Your task to perform on an android device: open app "Life360: Find Family & Friends" Image 0: 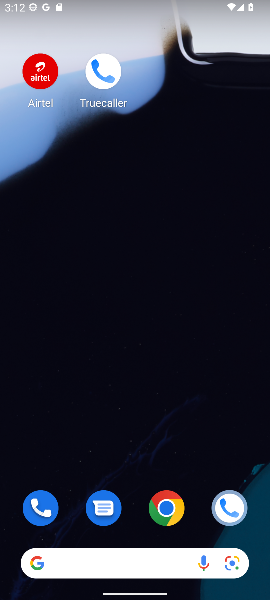
Step 0: drag from (206, 465) to (89, 30)
Your task to perform on an android device: open app "Life360: Find Family & Friends" Image 1: 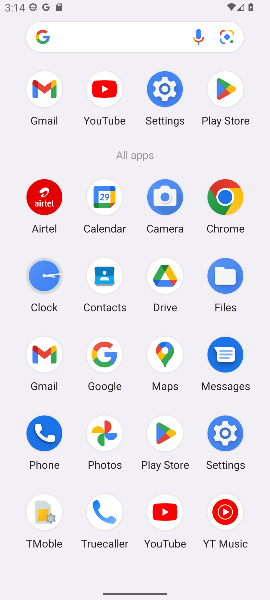
Step 1: click (161, 428)
Your task to perform on an android device: open app "Life360: Find Family & Friends" Image 2: 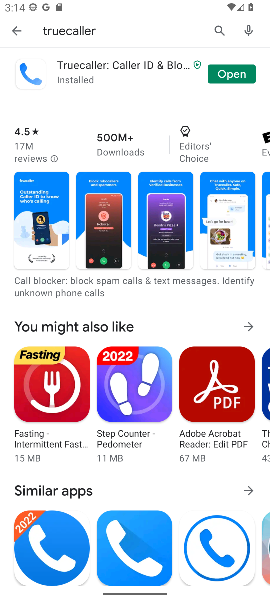
Step 2: press back button
Your task to perform on an android device: open app "Life360: Find Family & Friends" Image 3: 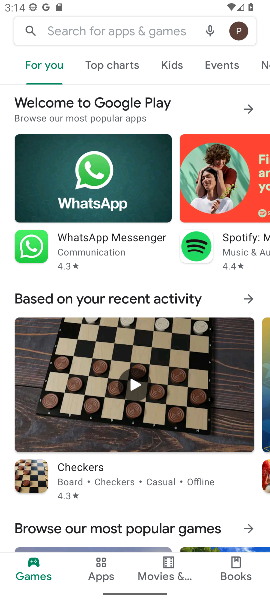
Step 3: click (71, 28)
Your task to perform on an android device: open app "Life360: Find Family & Friends" Image 4: 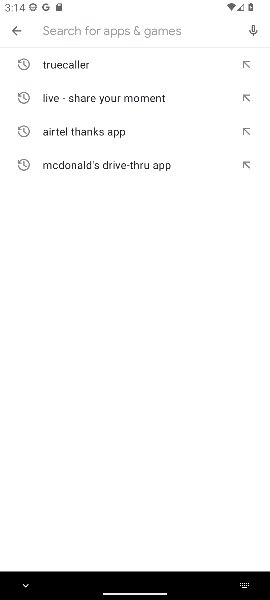
Step 4: type "Life360: Find Family & Friends"
Your task to perform on an android device: open app "Life360: Find Family & Friends" Image 5: 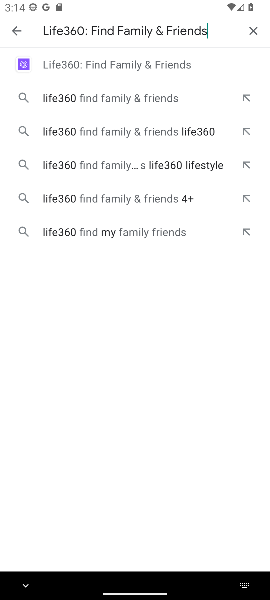
Step 5: click (73, 71)
Your task to perform on an android device: open app "Life360: Find Family & Friends" Image 6: 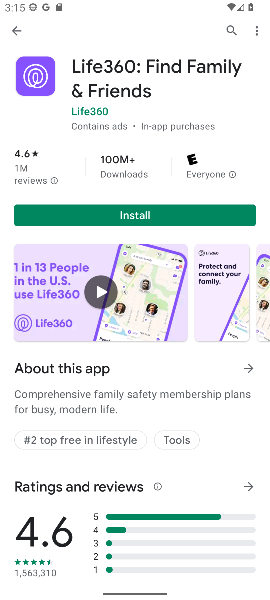
Step 6: task complete